Your task to perform on an android device: Open calendar and show me the third week of next month Image 0: 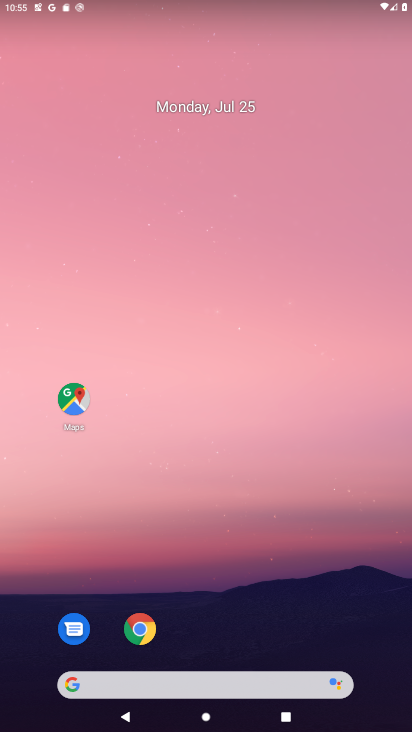
Step 0: click (198, 105)
Your task to perform on an android device: Open calendar and show me the third week of next month Image 1: 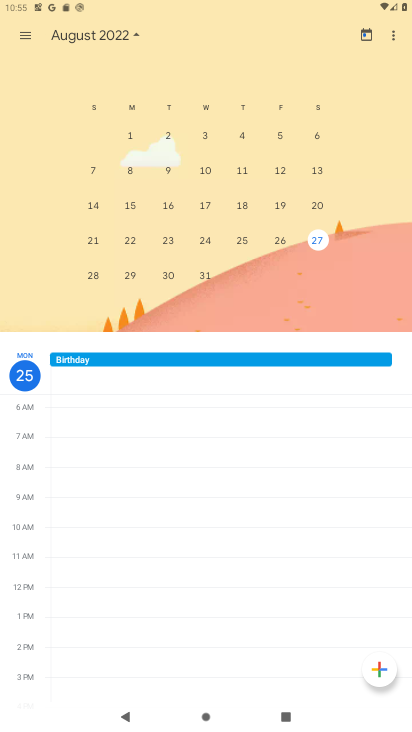
Step 1: click (323, 207)
Your task to perform on an android device: Open calendar and show me the third week of next month Image 2: 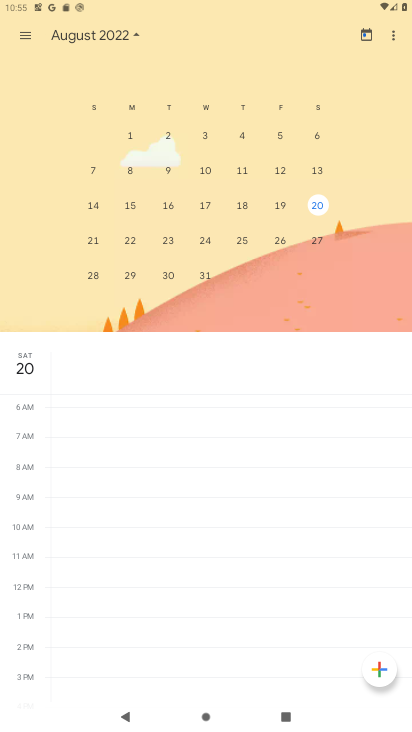
Step 2: task complete